Your task to perform on an android device: Go to internet settings Image 0: 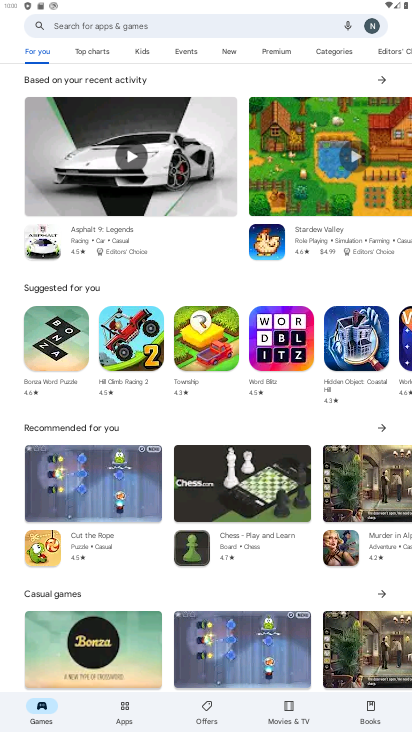
Step 0: press home button
Your task to perform on an android device: Go to internet settings Image 1: 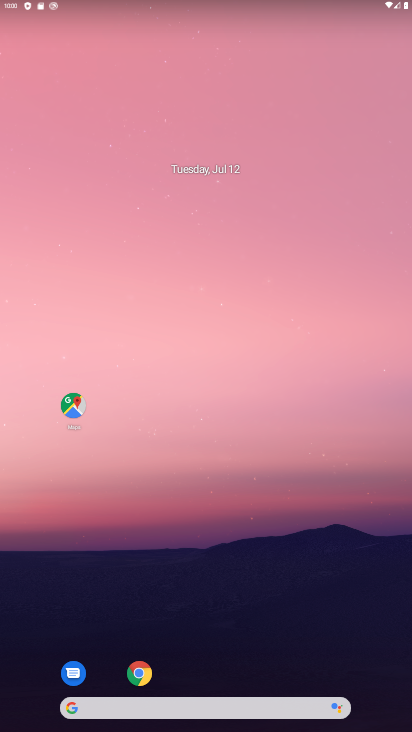
Step 1: drag from (270, 632) to (235, 123)
Your task to perform on an android device: Go to internet settings Image 2: 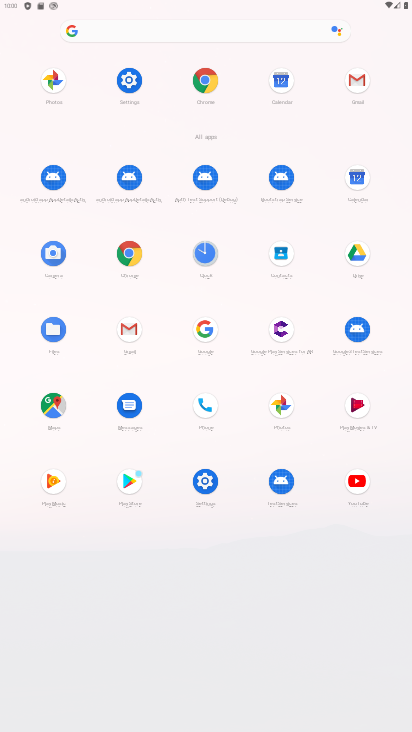
Step 2: click (141, 83)
Your task to perform on an android device: Go to internet settings Image 3: 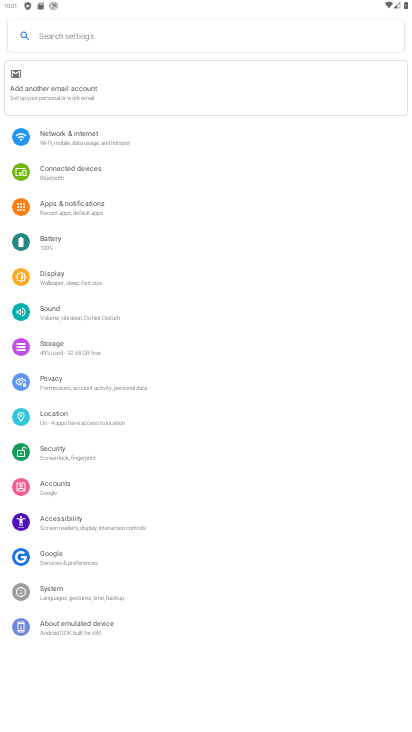
Step 3: click (63, 142)
Your task to perform on an android device: Go to internet settings Image 4: 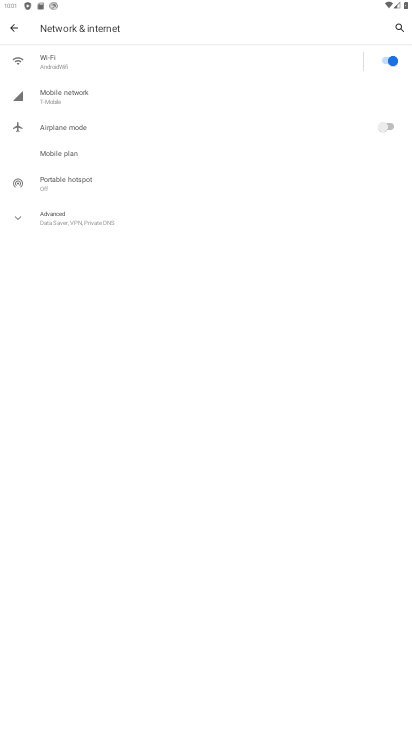
Step 4: click (46, 225)
Your task to perform on an android device: Go to internet settings Image 5: 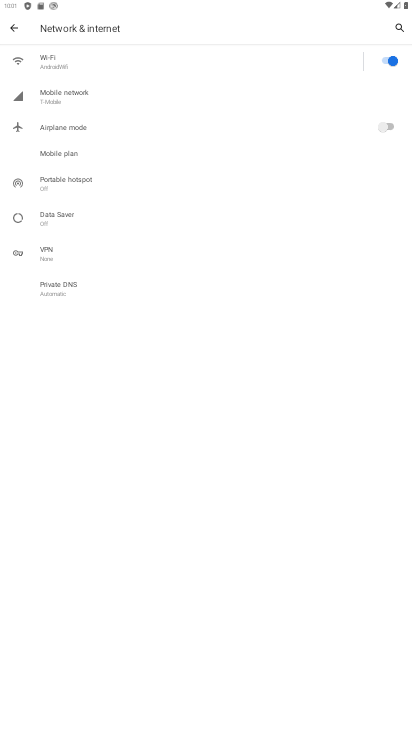
Step 5: task complete